Your task to perform on an android device: turn on data saver in the chrome app Image 0: 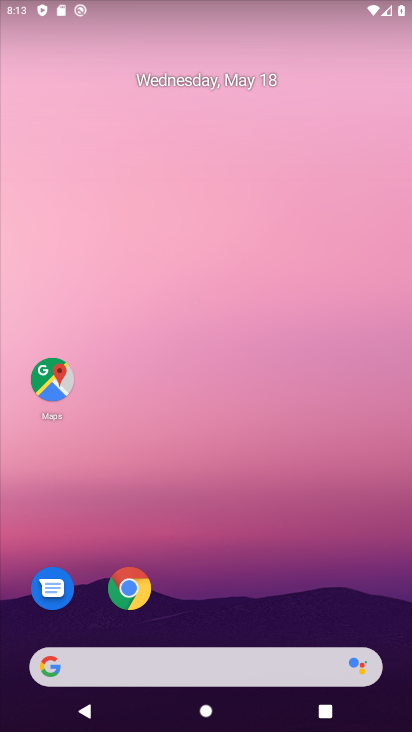
Step 0: click (125, 599)
Your task to perform on an android device: turn on data saver in the chrome app Image 1: 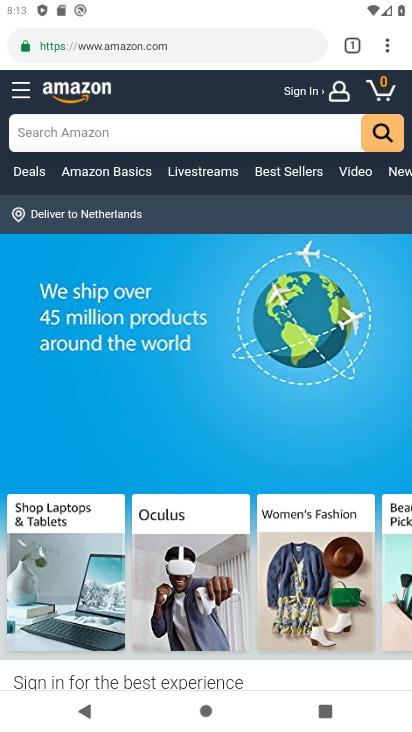
Step 1: click (387, 42)
Your task to perform on an android device: turn on data saver in the chrome app Image 2: 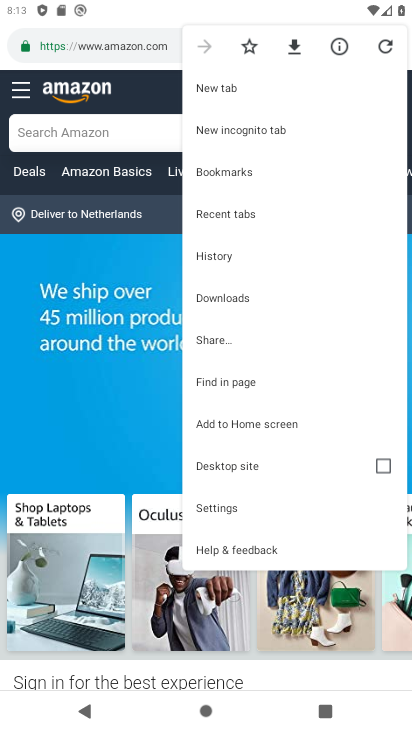
Step 2: click (223, 512)
Your task to perform on an android device: turn on data saver in the chrome app Image 3: 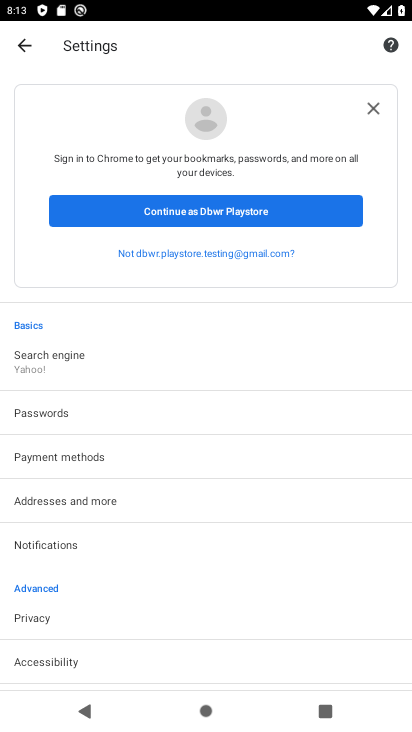
Step 3: drag from (289, 616) to (278, 156)
Your task to perform on an android device: turn on data saver in the chrome app Image 4: 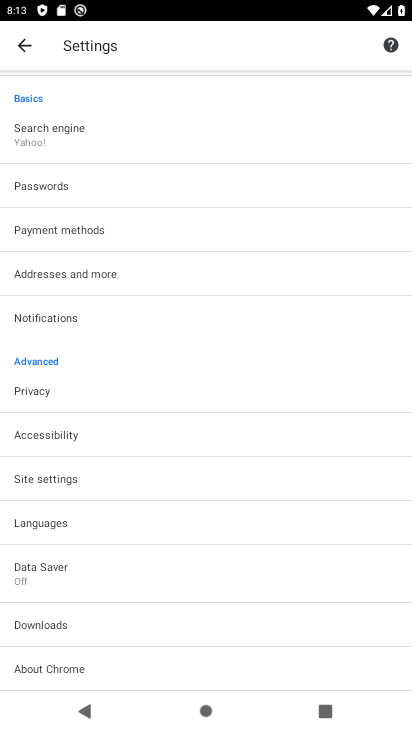
Step 4: click (39, 566)
Your task to perform on an android device: turn on data saver in the chrome app Image 5: 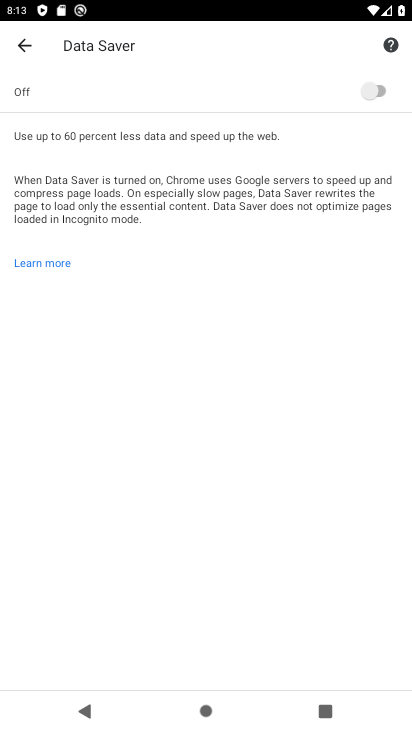
Step 5: click (361, 90)
Your task to perform on an android device: turn on data saver in the chrome app Image 6: 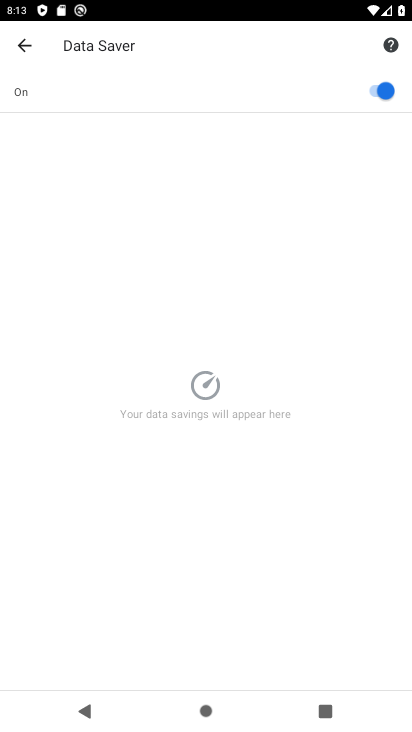
Step 6: task complete